Your task to perform on an android device: see sites visited before in the chrome app Image 0: 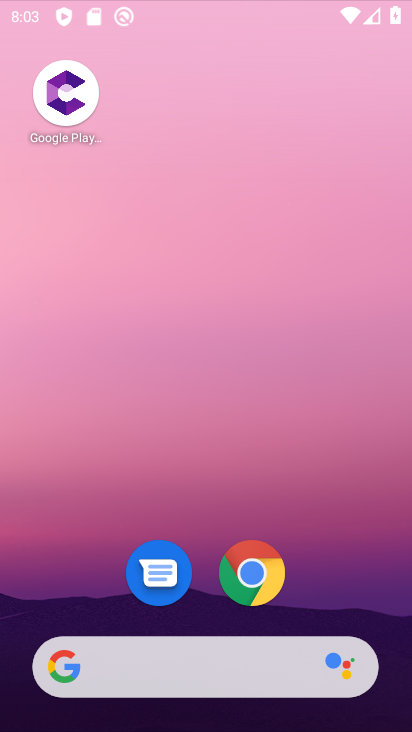
Step 0: click (213, 20)
Your task to perform on an android device: see sites visited before in the chrome app Image 1: 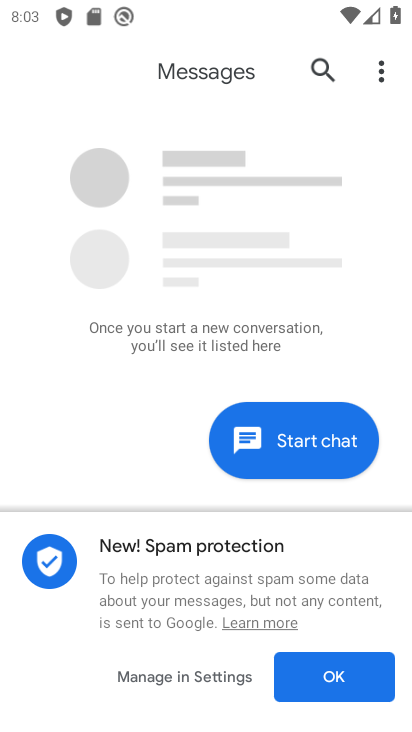
Step 1: press home button
Your task to perform on an android device: see sites visited before in the chrome app Image 2: 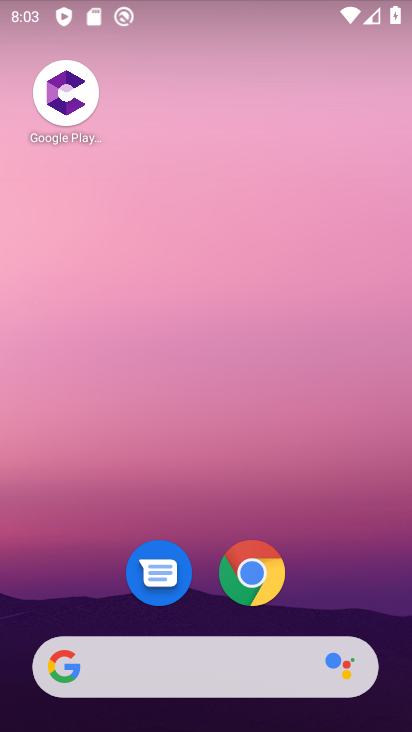
Step 2: drag from (208, 617) to (190, 71)
Your task to perform on an android device: see sites visited before in the chrome app Image 3: 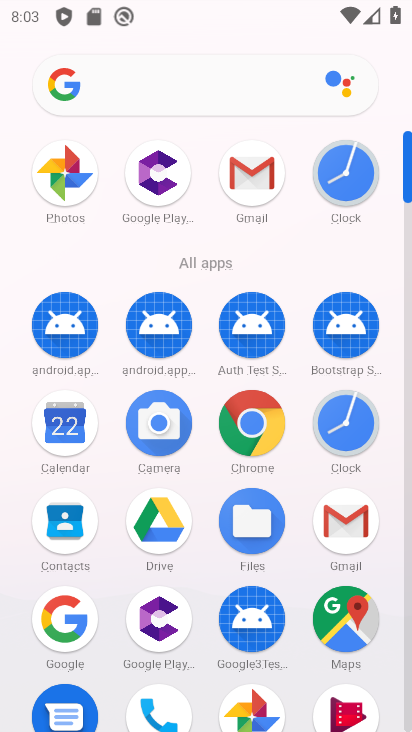
Step 3: click (251, 411)
Your task to perform on an android device: see sites visited before in the chrome app Image 4: 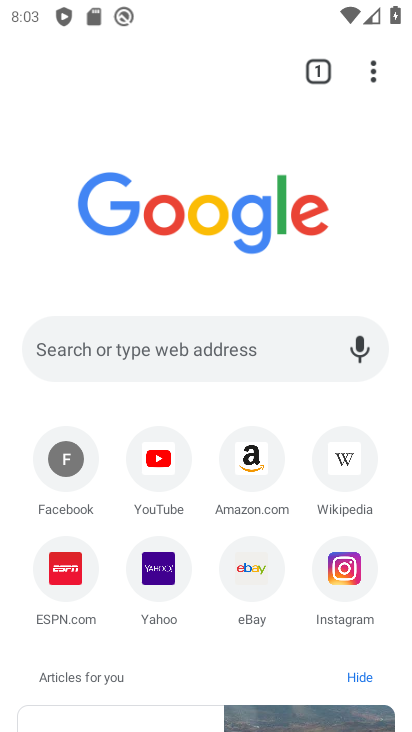
Step 4: click (378, 73)
Your task to perform on an android device: see sites visited before in the chrome app Image 5: 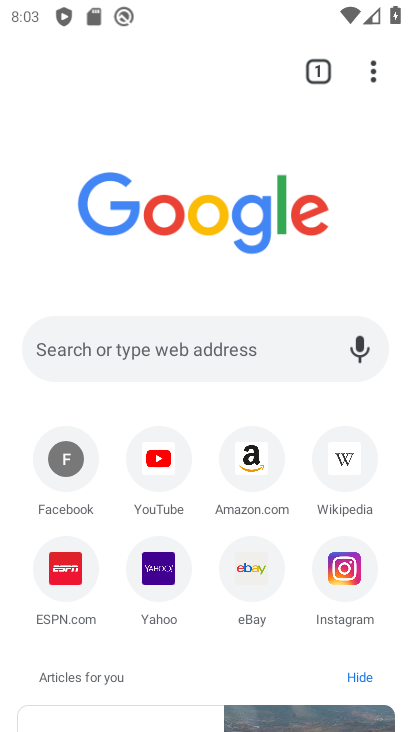
Step 5: click (376, 74)
Your task to perform on an android device: see sites visited before in the chrome app Image 6: 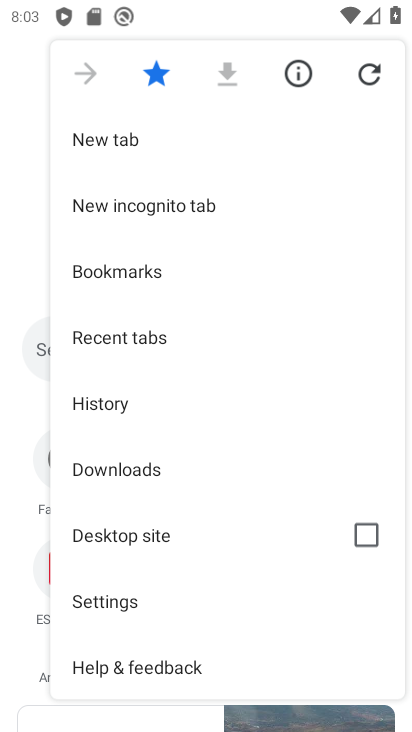
Step 6: drag from (188, 611) to (270, 166)
Your task to perform on an android device: see sites visited before in the chrome app Image 7: 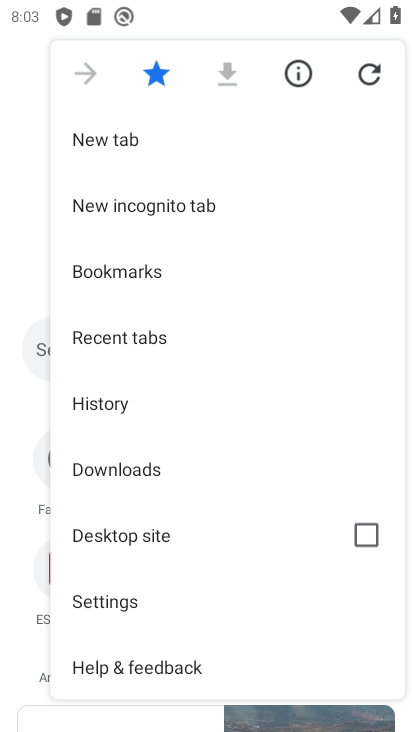
Step 7: click (158, 600)
Your task to perform on an android device: see sites visited before in the chrome app Image 8: 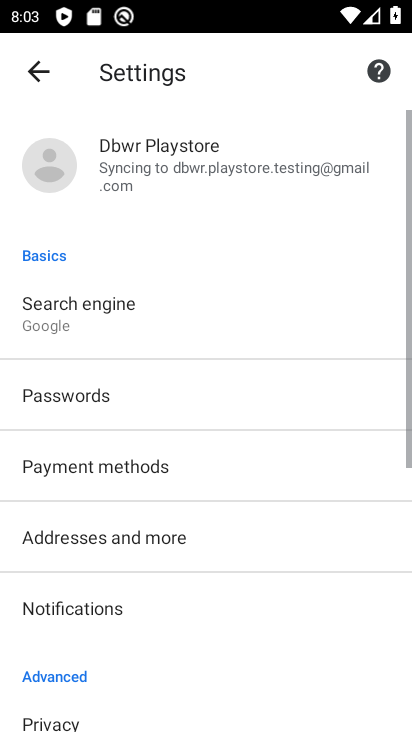
Step 8: drag from (202, 600) to (303, 109)
Your task to perform on an android device: see sites visited before in the chrome app Image 9: 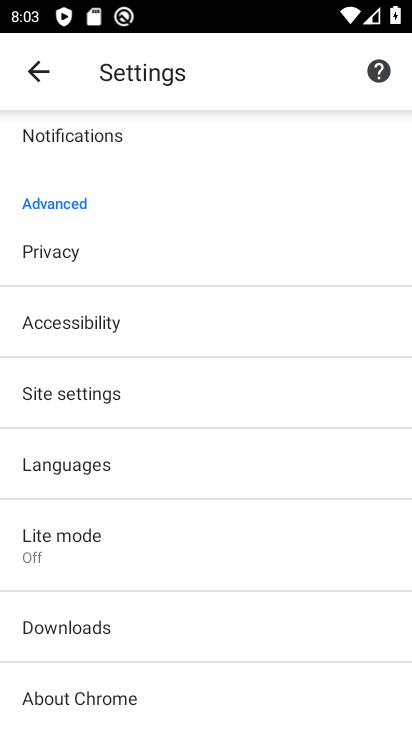
Step 9: drag from (179, 659) to (238, 241)
Your task to perform on an android device: see sites visited before in the chrome app Image 10: 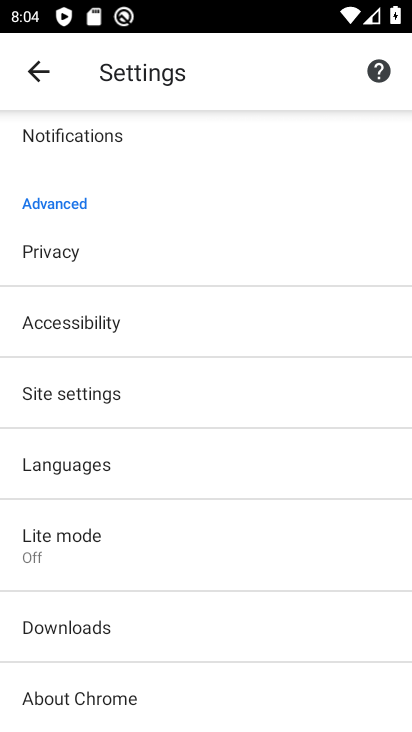
Step 10: click (18, 58)
Your task to perform on an android device: see sites visited before in the chrome app Image 11: 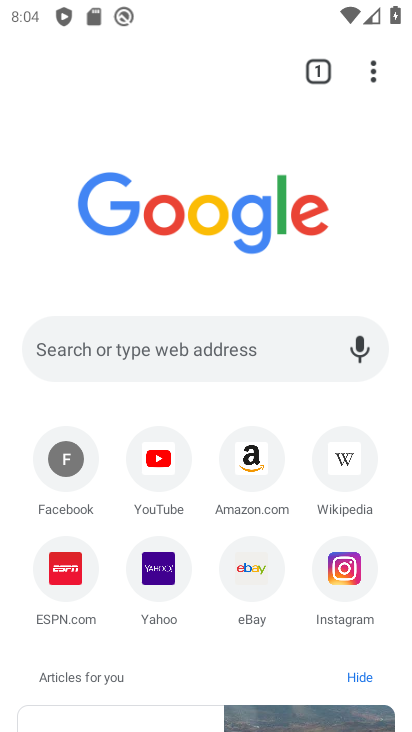
Step 11: click (387, 66)
Your task to perform on an android device: see sites visited before in the chrome app Image 12: 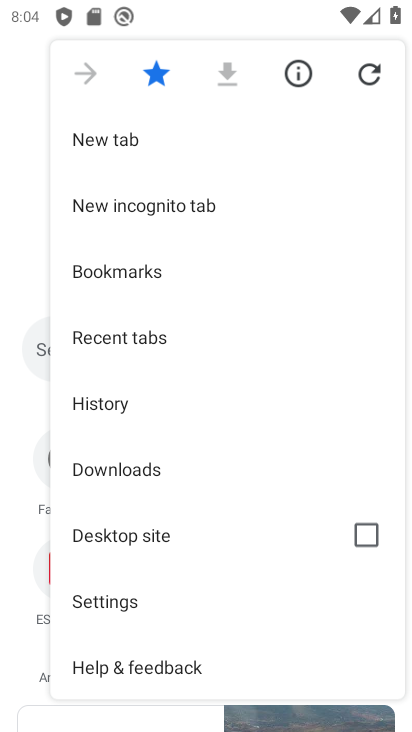
Step 12: drag from (378, 65) to (192, 438)
Your task to perform on an android device: see sites visited before in the chrome app Image 13: 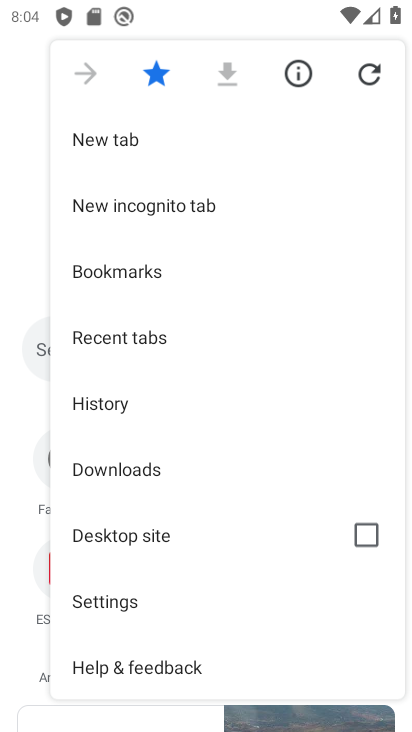
Step 13: click (154, 270)
Your task to perform on an android device: see sites visited before in the chrome app Image 14: 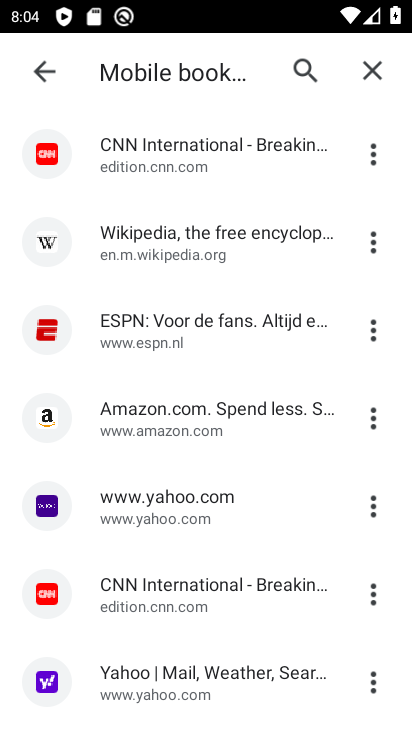
Step 14: task complete